Your task to perform on an android device: show emergency info Image 0: 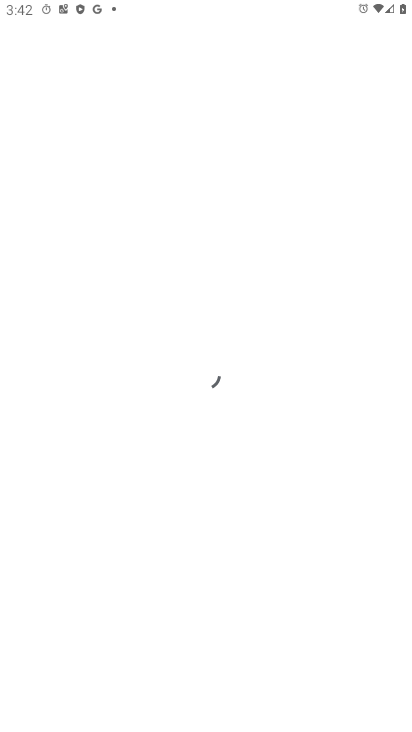
Step 0: press home button
Your task to perform on an android device: show emergency info Image 1: 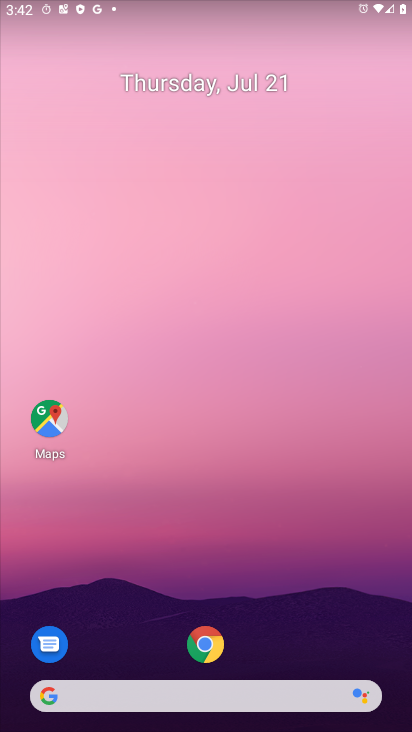
Step 1: drag from (296, 631) to (348, 84)
Your task to perform on an android device: show emergency info Image 2: 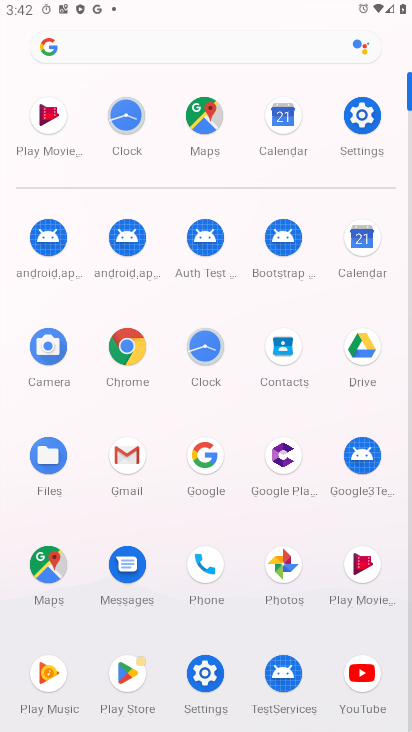
Step 2: click (362, 115)
Your task to perform on an android device: show emergency info Image 3: 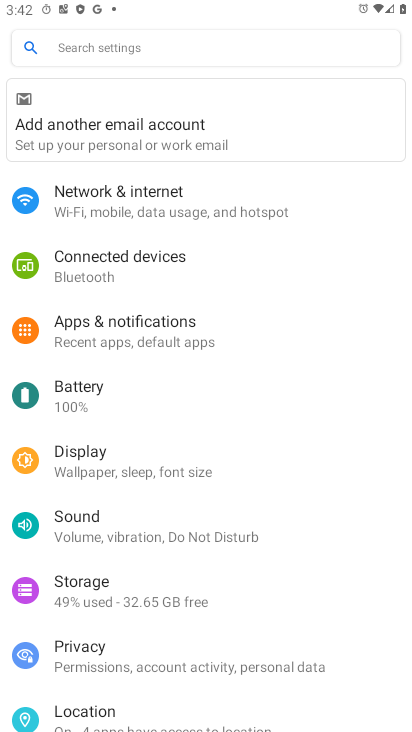
Step 3: drag from (190, 689) to (284, 130)
Your task to perform on an android device: show emergency info Image 4: 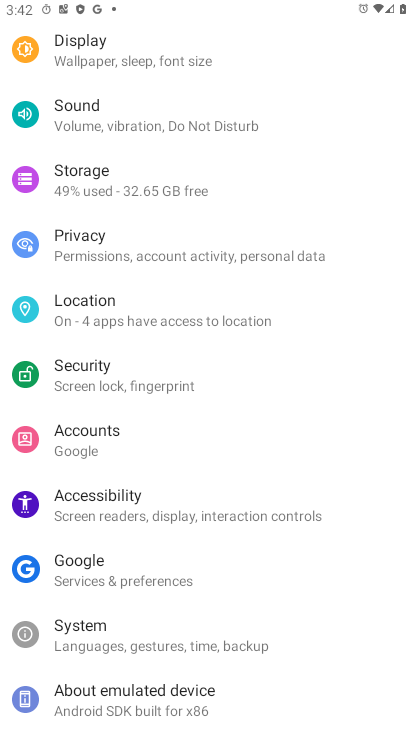
Step 4: click (177, 684)
Your task to perform on an android device: show emergency info Image 5: 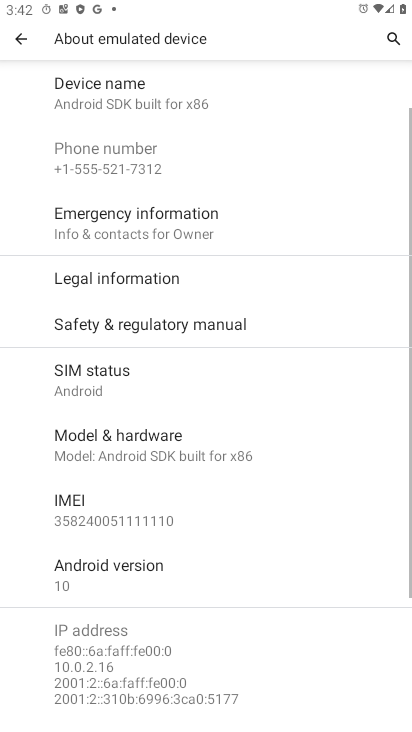
Step 5: click (132, 222)
Your task to perform on an android device: show emergency info Image 6: 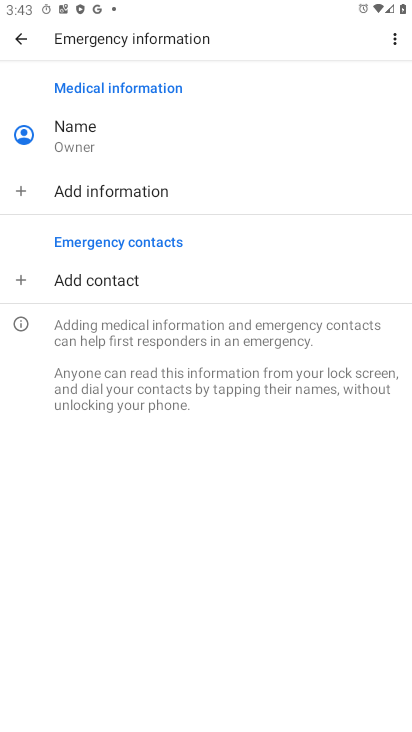
Step 6: task complete